Your task to perform on an android device: turn on showing notifications on the lock screen Image 0: 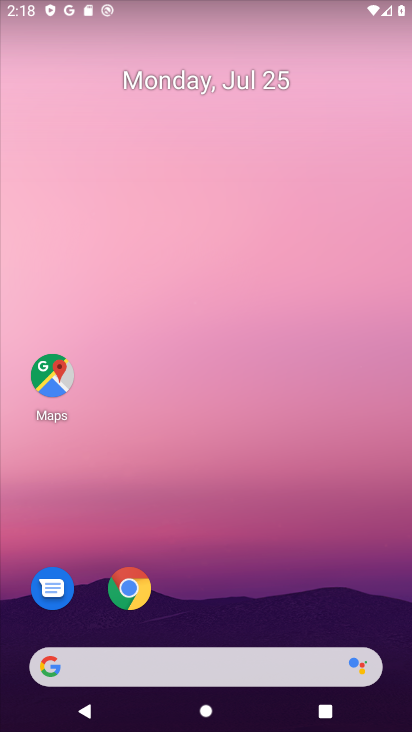
Step 0: press home button
Your task to perform on an android device: turn on showing notifications on the lock screen Image 1: 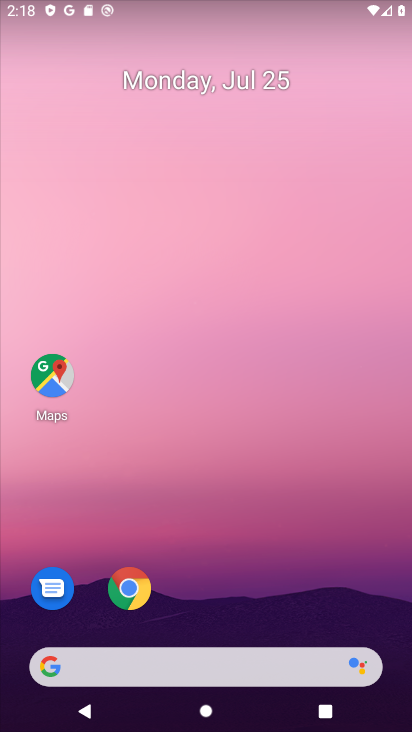
Step 1: drag from (190, 629) to (206, 48)
Your task to perform on an android device: turn on showing notifications on the lock screen Image 2: 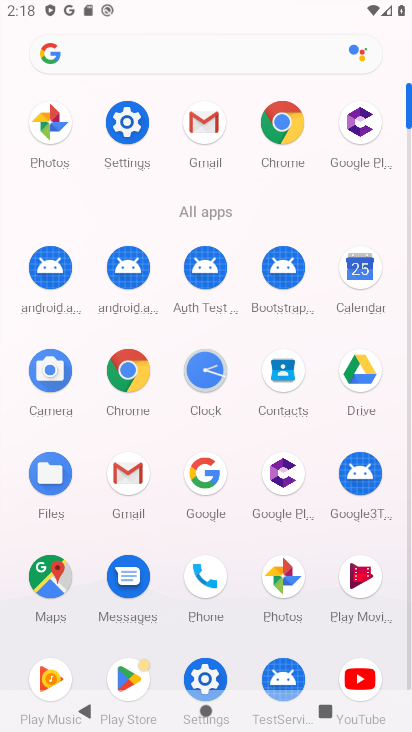
Step 2: click (124, 119)
Your task to perform on an android device: turn on showing notifications on the lock screen Image 3: 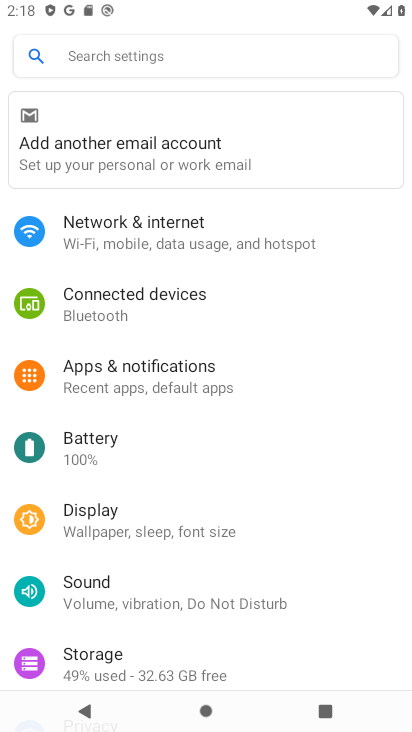
Step 3: click (178, 376)
Your task to perform on an android device: turn on showing notifications on the lock screen Image 4: 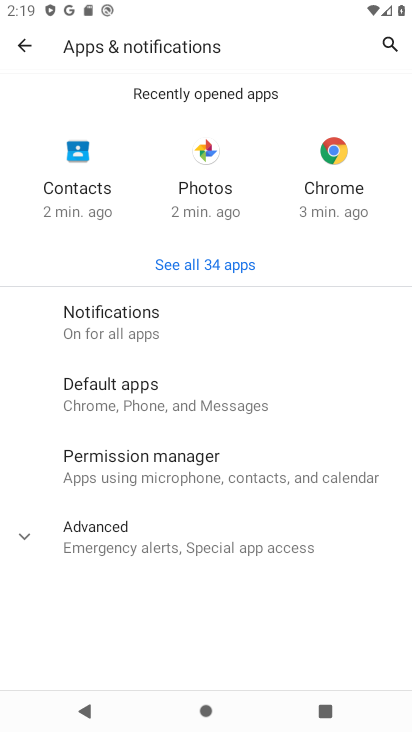
Step 4: click (148, 322)
Your task to perform on an android device: turn on showing notifications on the lock screen Image 5: 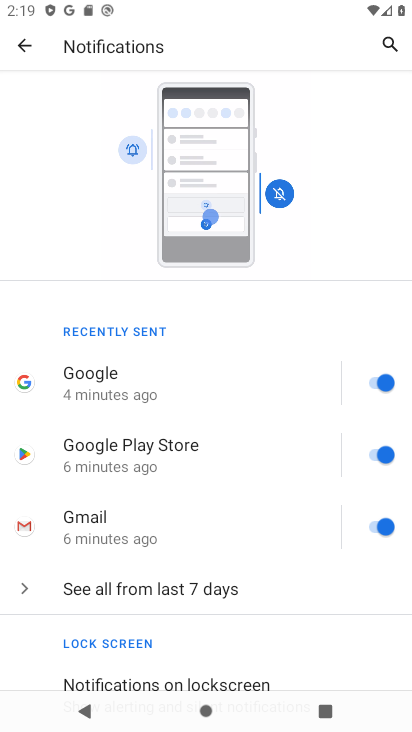
Step 5: click (223, 666)
Your task to perform on an android device: turn on showing notifications on the lock screen Image 6: 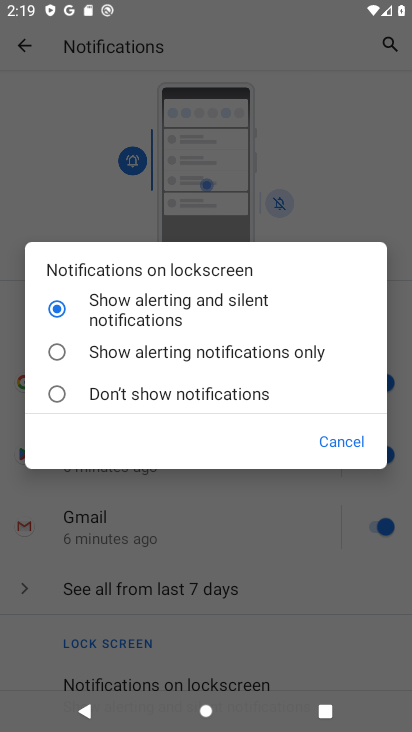
Step 6: click (55, 355)
Your task to perform on an android device: turn on showing notifications on the lock screen Image 7: 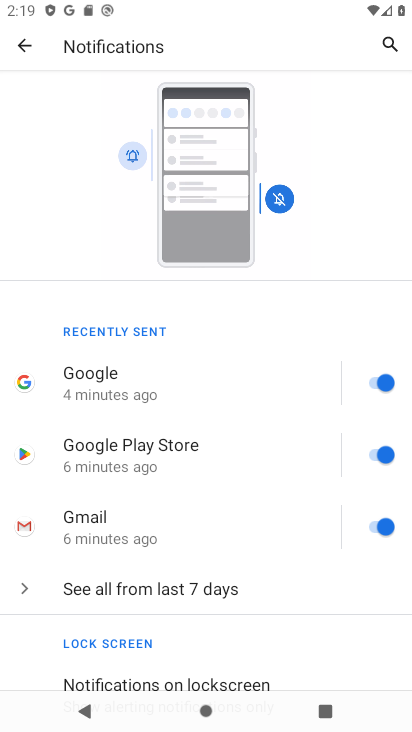
Step 7: task complete